Your task to perform on an android device: turn on javascript in the chrome app Image 0: 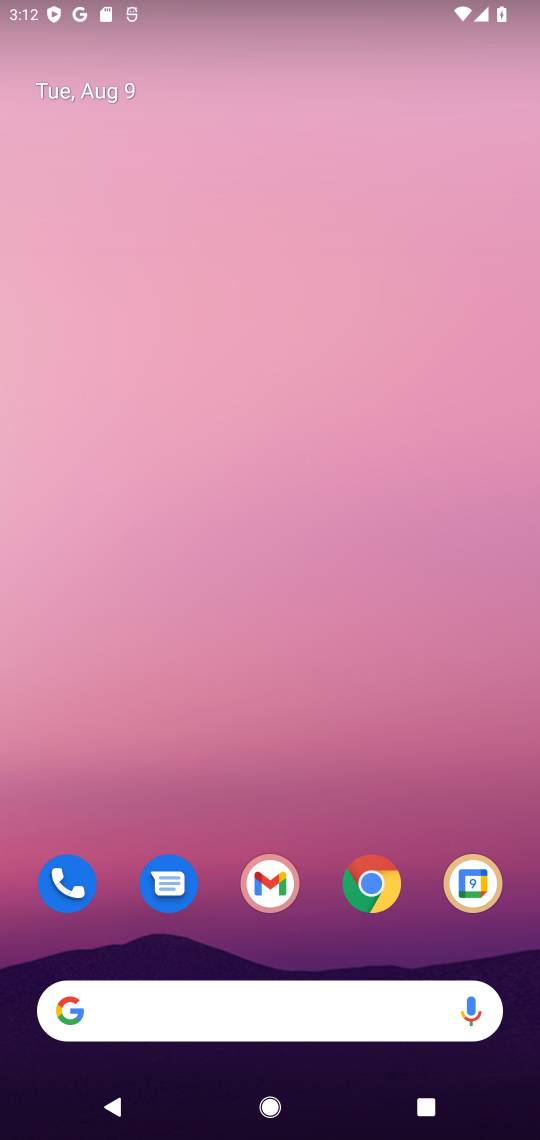
Step 0: click (371, 878)
Your task to perform on an android device: turn on javascript in the chrome app Image 1: 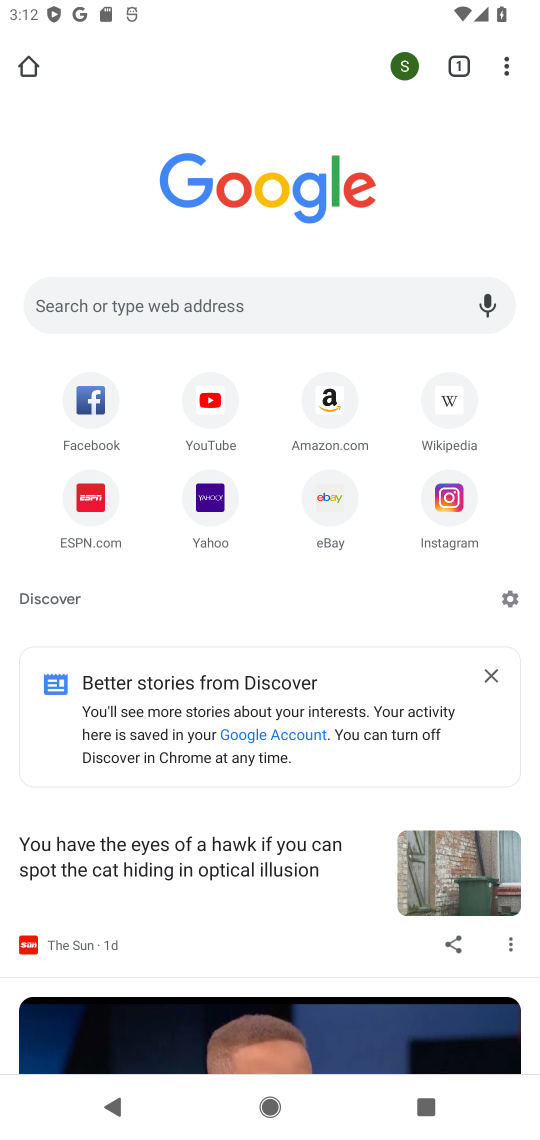
Step 1: click (500, 75)
Your task to perform on an android device: turn on javascript in the chrome app Image 2: 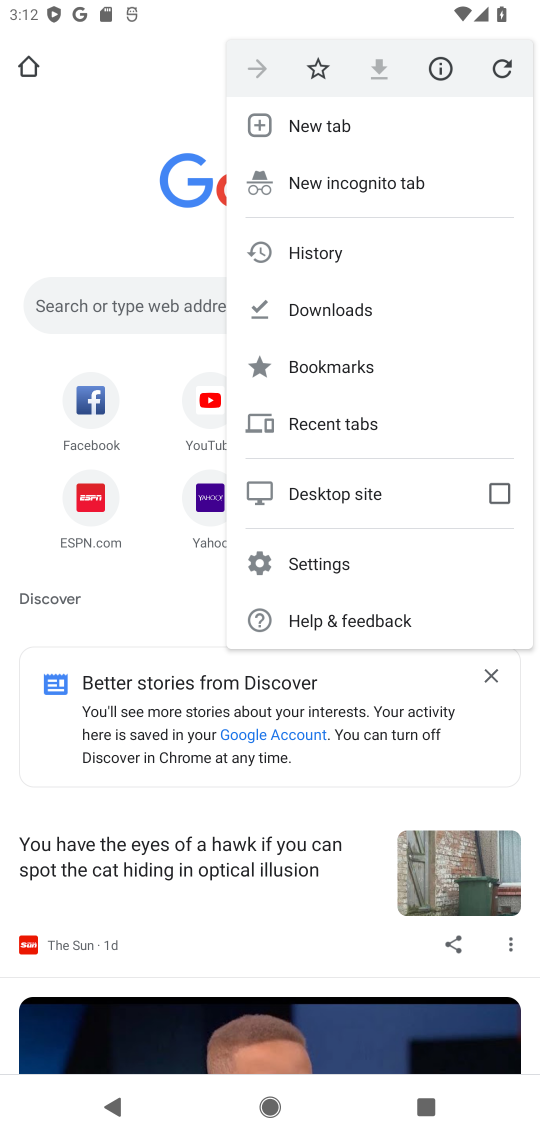
Step 2: click (297, 558)
Your task to perform on an android device: turn on javascript in the chrome app Image 3: 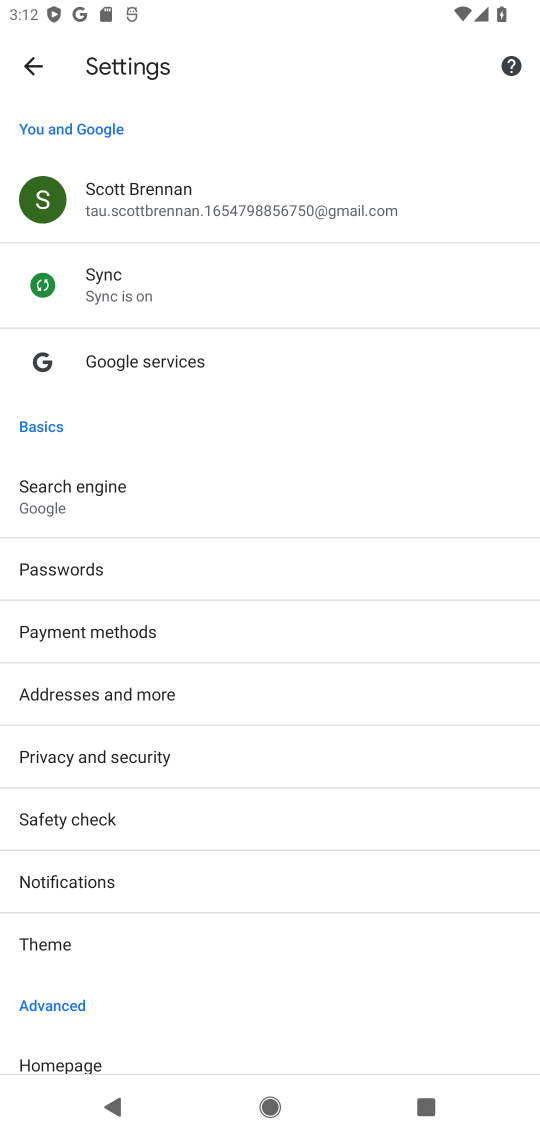
Step 3: drag from (261, 1018) to (235, 395)
Your task to perform on an android device: turn on javascript in the chrome app Image 4: 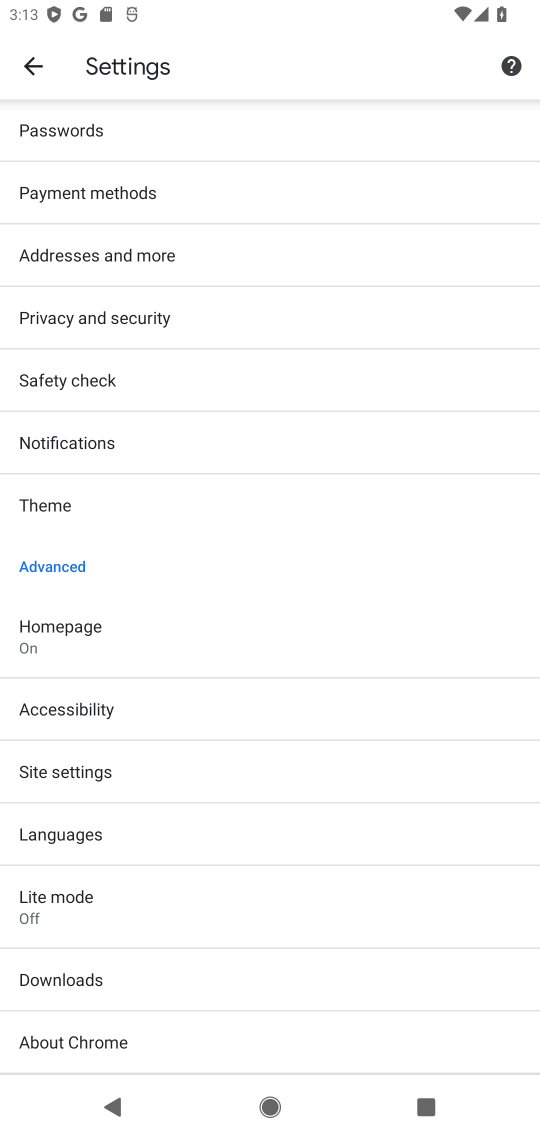
Step 4: click (61, 776)
Your task to perform on an android device: turn on javascript in the chrome app Image 5: 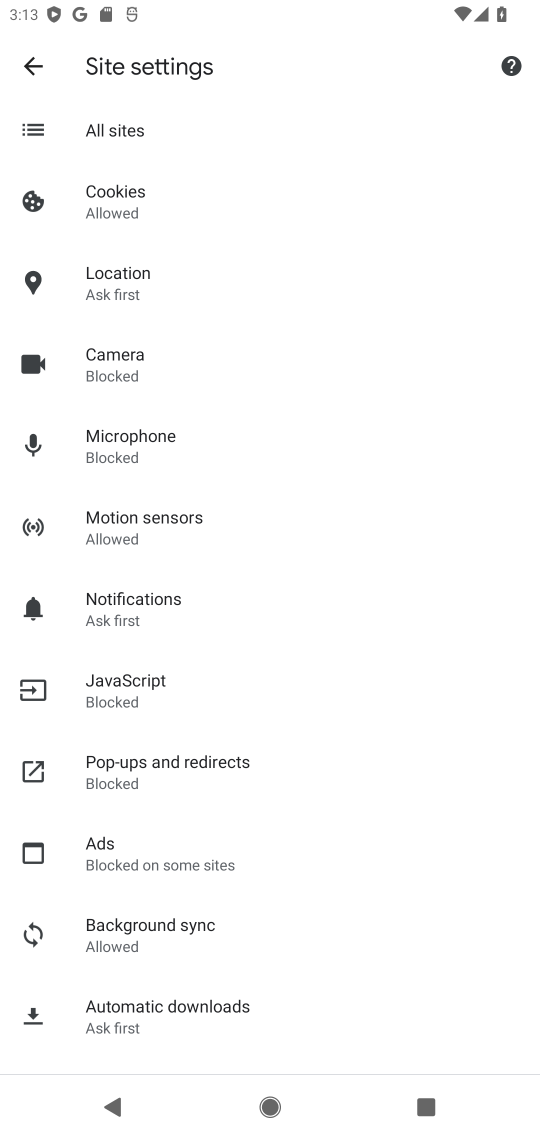
Step 5: click (118, 683)
Your task to perform on an android device: turn on javascript in the chrome app Image 6: 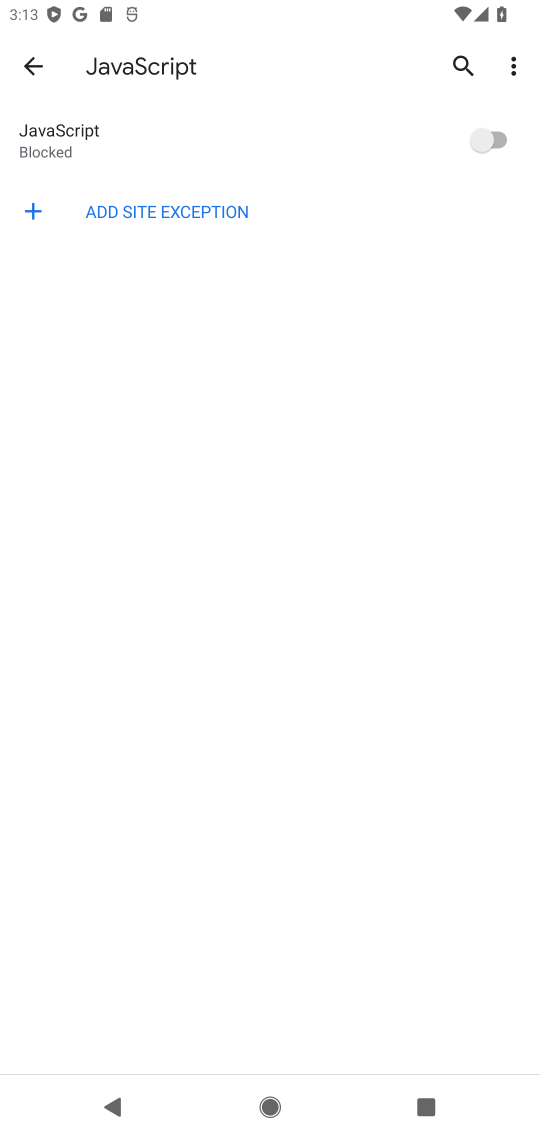
Step 6: click (502, 137)
Your task to perform on an android device: turn on javascript in the chrome app Image 7: 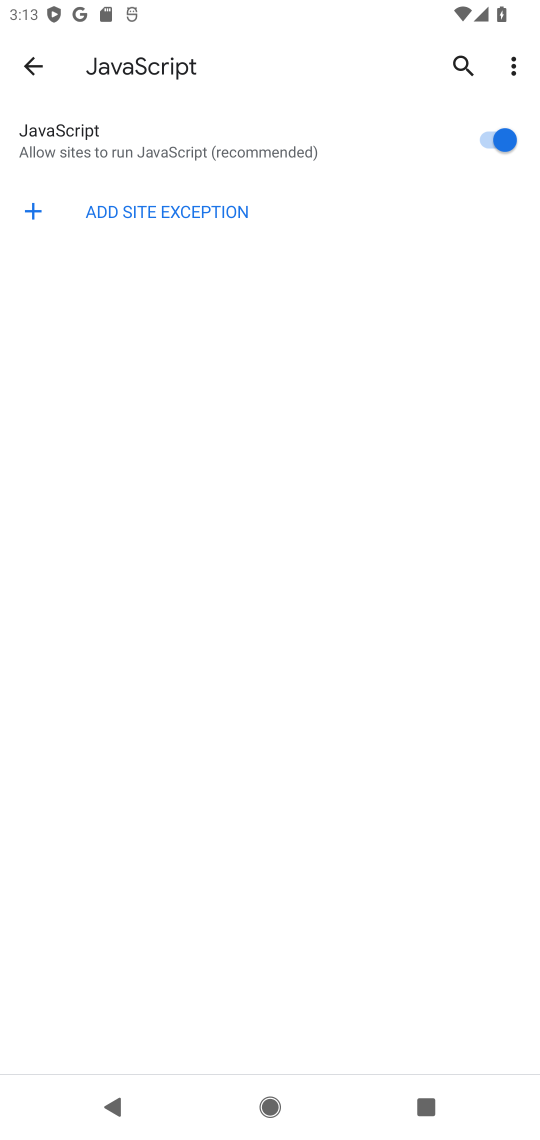
Step 7: task complete